Your task to perform on an android device: turn on wifi Image 0: 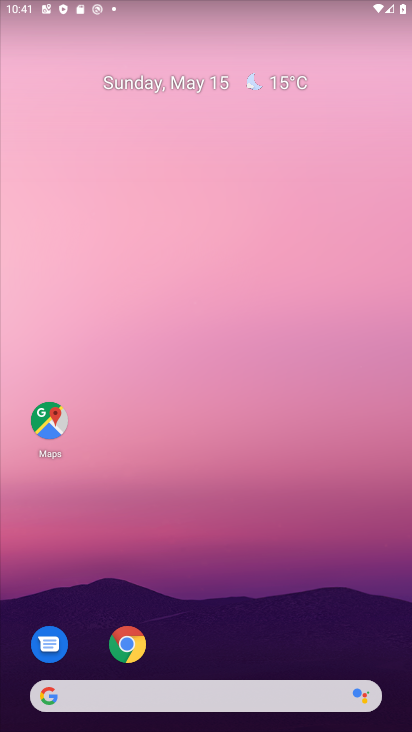
Step 0: drag from (230, 678) to (226, 286)
Your task to perform on an android device: turn on wifi Image 1: 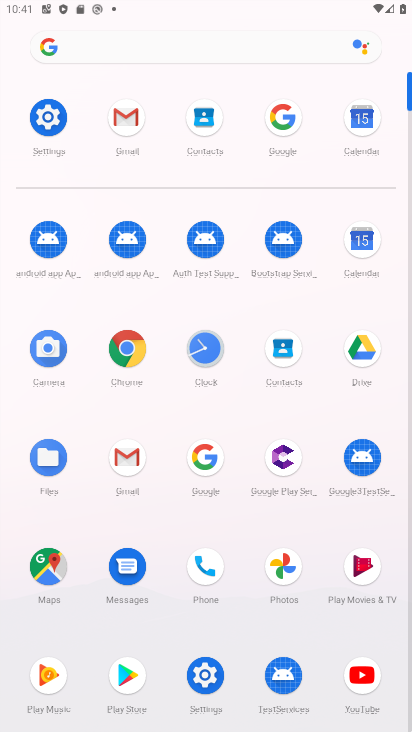
Step 1: click (43, 113)
Your task to perform on an android device: turn on wifi Image 2: 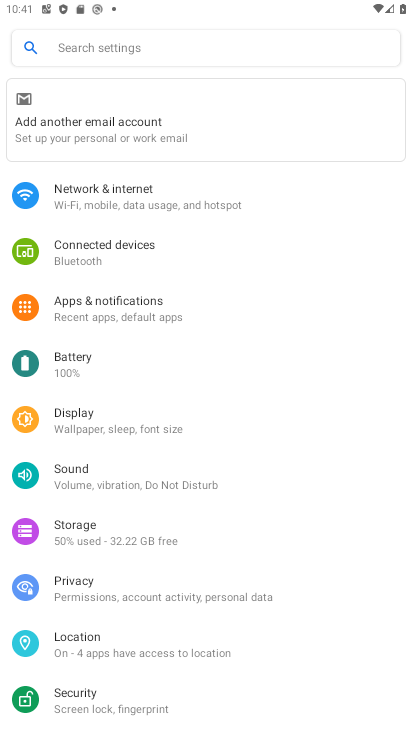
Step 2: click (86, 203)
Your task to perform on an android device: turn on wifi Image 3: 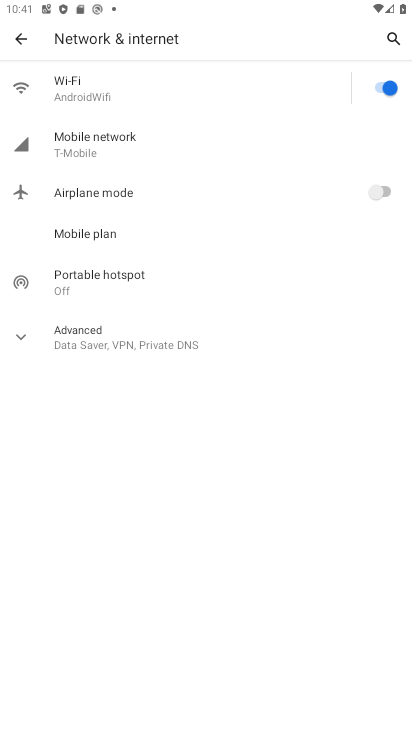
Step 3: task complete